Your task to perform on an android device: Open Google Chrome and click the shortcut for Amazon.com Image 0: 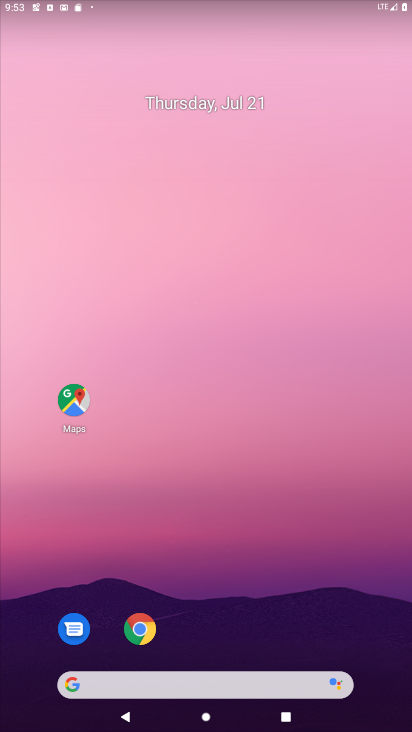
Step 0: drag from (274, 540) to (301, 12)
Your task to perform on an android device: Open Google Chrome and click the shortcut for Amazon.com Image 1: 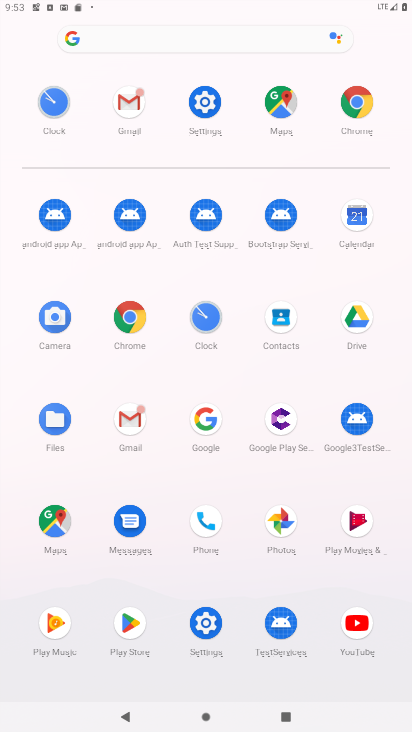
Step 1: click (136, 323)
Your task to perform on an android device: Open Google Chrome and click the shortcut for Amazon.com Image 2: 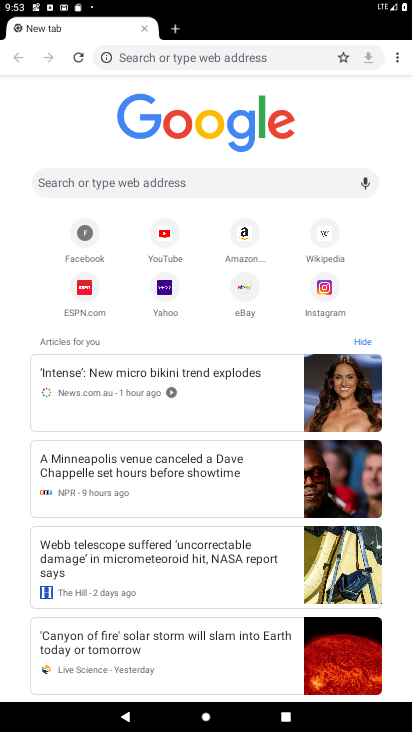
Step 2: click (241, 224)
Your task to perform on an android device: Open Google Chrome and click the shortcut for Amazon.com Image 3: 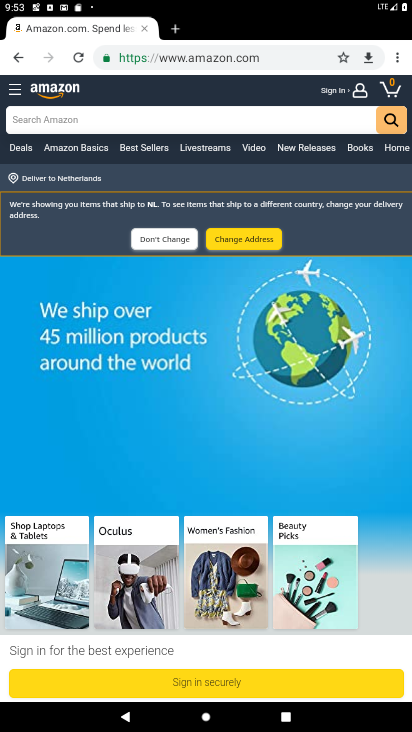
Step 3: task complete